Your task to perform on an android device: search for starred emails in the gmail app Image 0: 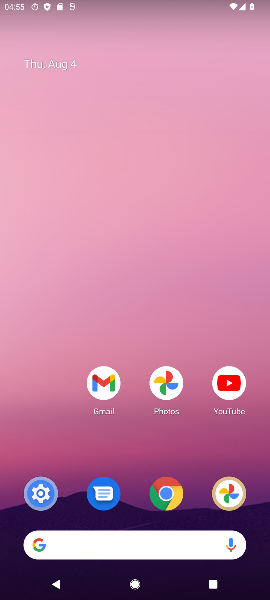
Step 0: drag from (25, 551) to (201, 48)
Your task to perform on an android device: search for starred emails in the gmail app Image 1: 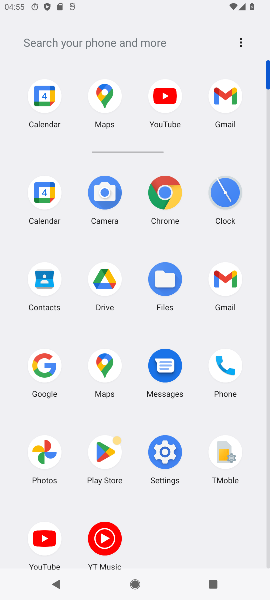
Step 1: click (217, 271)
Your task to perform on an android device: search for starred emails in the gmail app Image 2: 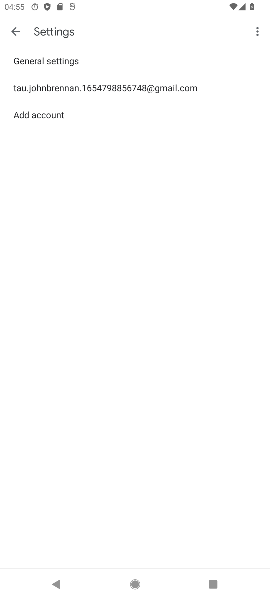
Step 2: click (11, 25)
Your task to perform on an android device: search for starred emails in the gmail app Image 3: 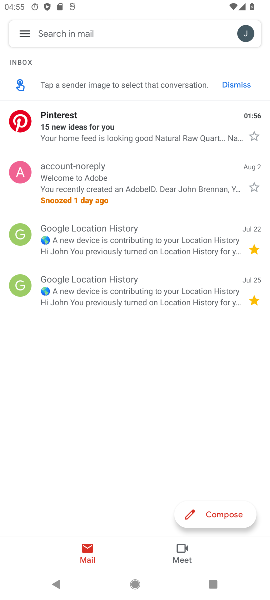
Step 3: click (26, 18)
Your task to perform on an android device: search for starred emails in the gmail app Image 4: 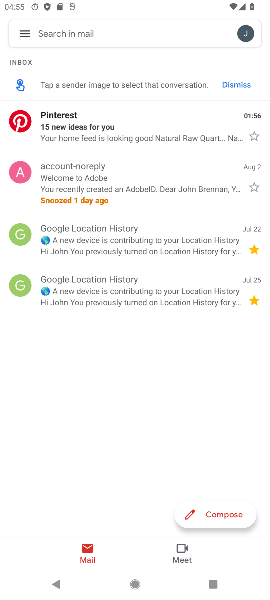
Step 4: click (21, 35)
Your task to perform on an android device: search for starred emails in the gmail app Image 5: 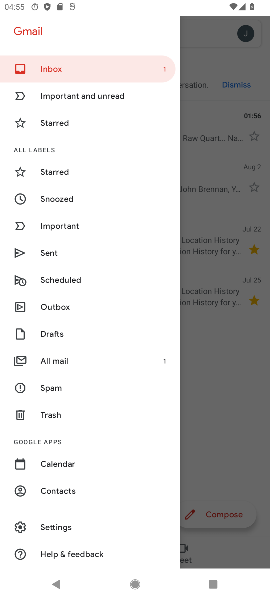
Step 5: click (38, 171)
Your task to perform on an android device: search for starred emails in the gmail app Image 6: 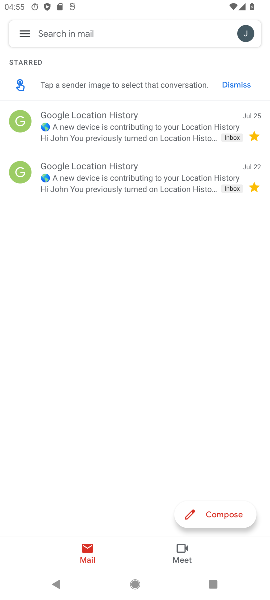
Step 6: task complete